Your task to perform on an android device: open app "DoorDash - Food Delivery" (install if not already installed), go to login, and select forgot password Image 0: 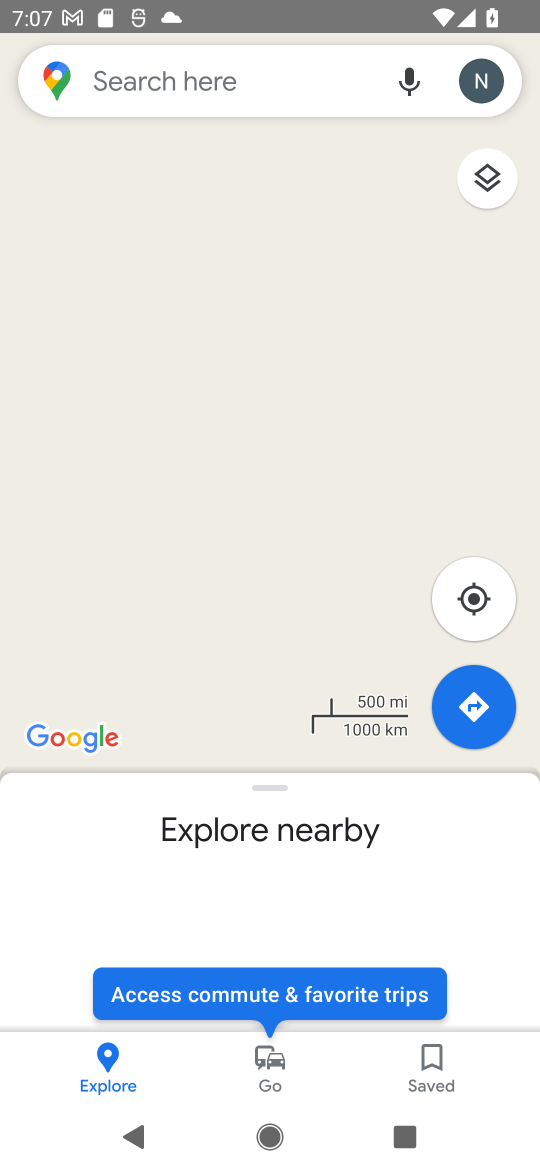
Step 0: press home button
Your task to perform on an android device: open app "DoorDash - Food Delivery" (install if not already installed), go to login, and select forgot password Image 1: 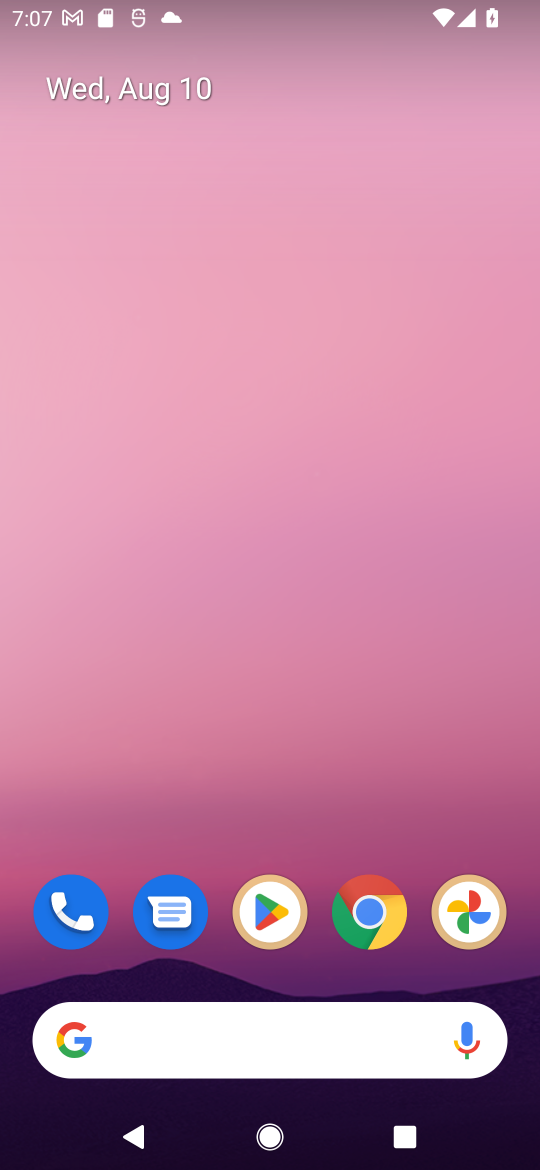
Step 1: drag from (514, 962) to (299, 63)
Your task to perform on an android device: open app "DoorDash - Food Delivery" (install if not already installed), go to login, and select forgot password Image 2: 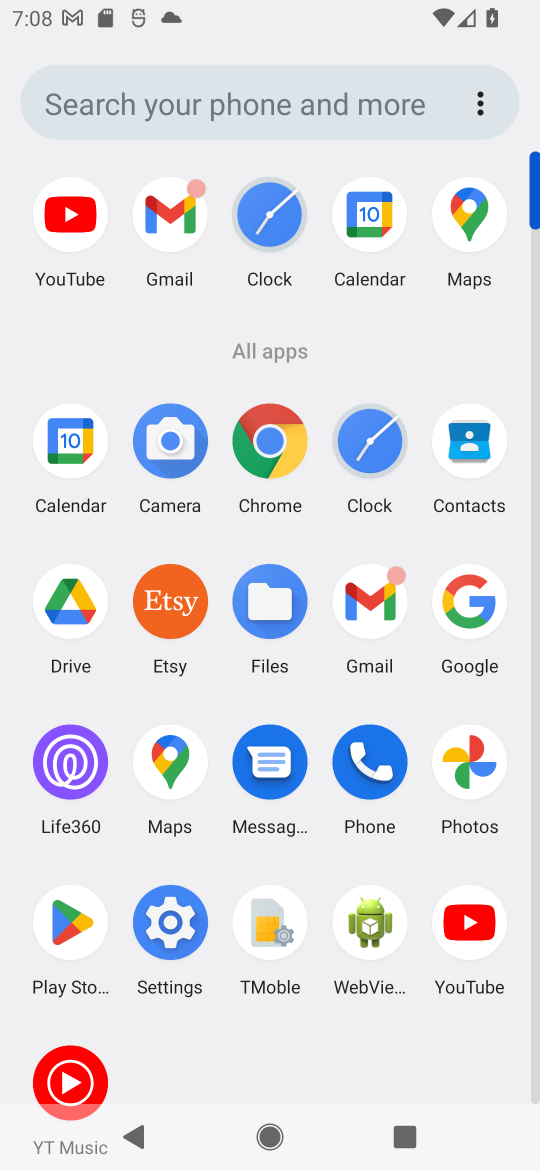
Step 2: click (72, 928)
Your task to perform on an android device: open app "DoorDash - Food Delivery" (install if not already installed), go to login, and select forgot password Image 3: 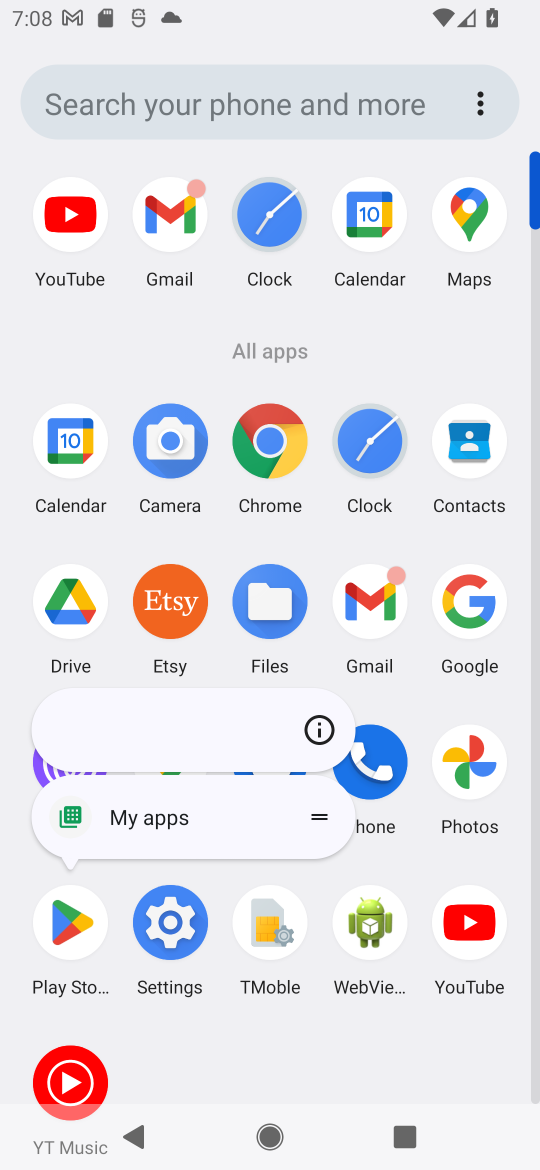
Step 3: click (60, 951)
Your task to perform on an android device: open app "DoorDash - Food Delivery" (install if not already installed), go to login, and select forgot password Image 4: 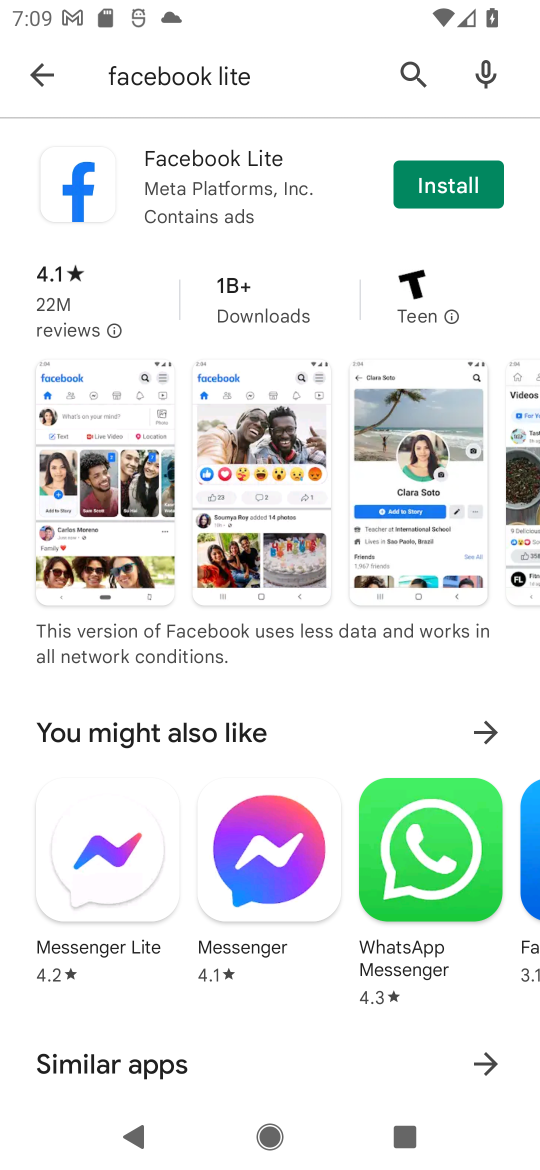
Step 4: press back button
Your task to perform on an android device: open app "DoorDash - Food Delivery" (install if not already installed), go to login, and select forgot password Image 5: 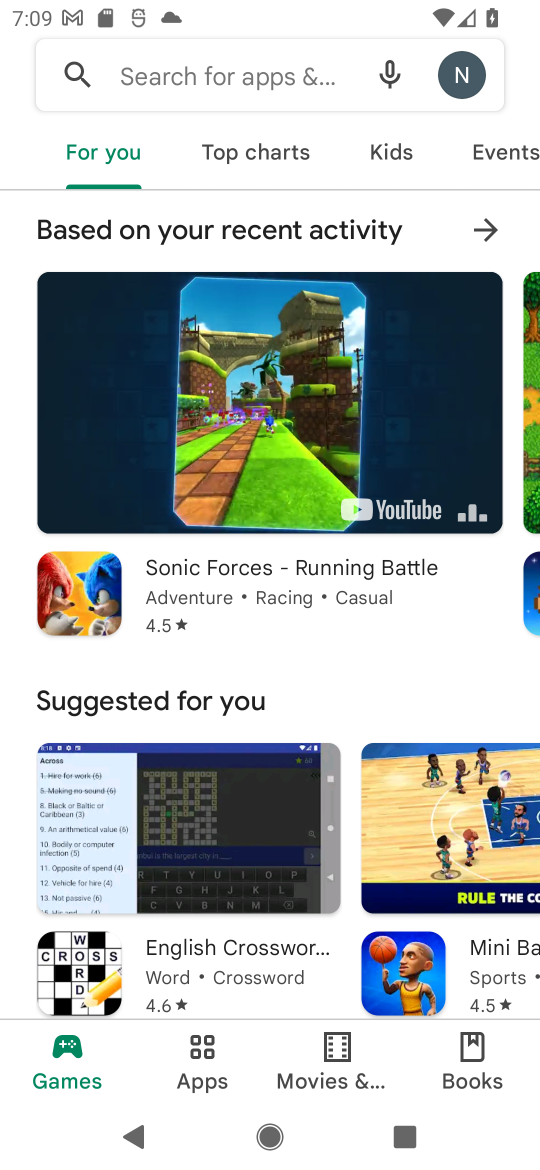
Step 5: click (194, 81)
Your task to perform on an android device: open app "DoorDash - Food Delivery" (install if not already installed), go to login, and select forgot password Image 6: 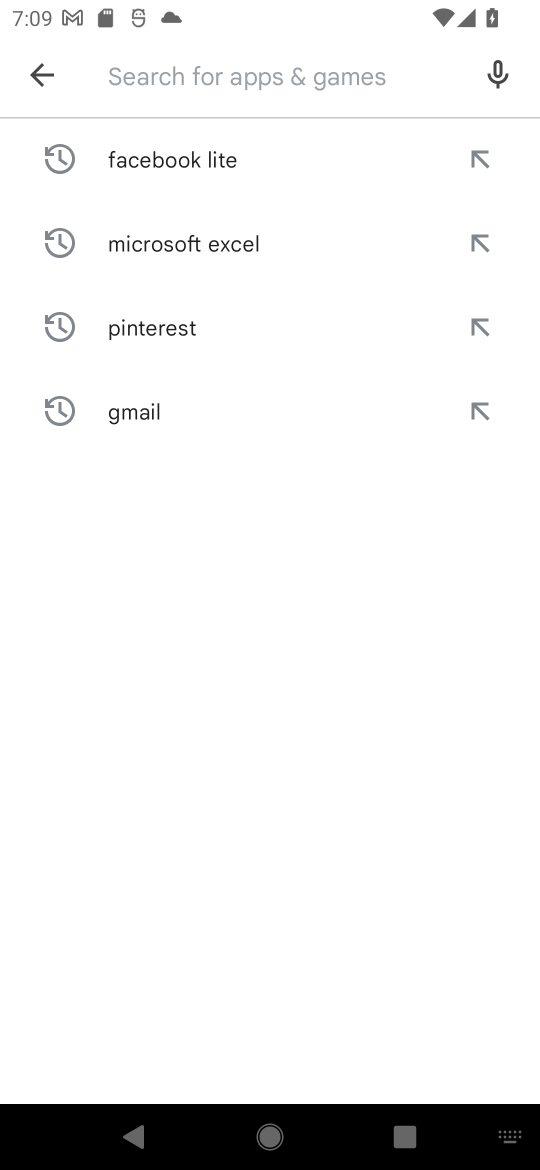
Step 6: type "DoorDash - Food Delivery"
Your task to perform on an android device: open app "DoorDash - Food Delivery" (install if not already installed), go to login, and select forgot password Image 7: 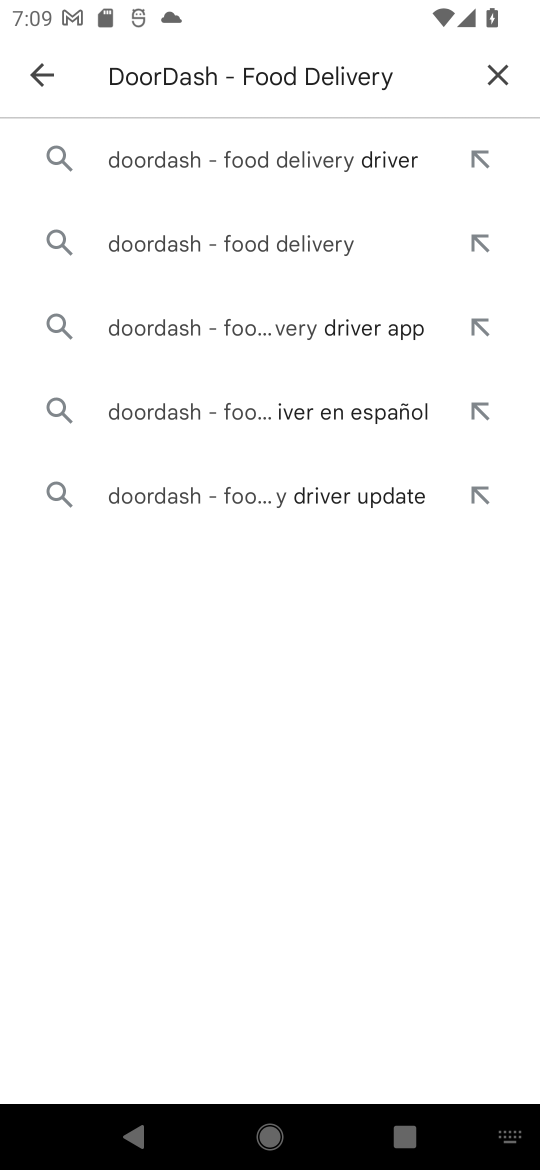
Step 7: click (263, 241)
Your task to perform on an android device: open app "DoorDash - Food Delivery" (install if not already installed), go to login, and select forgot password Image 8: 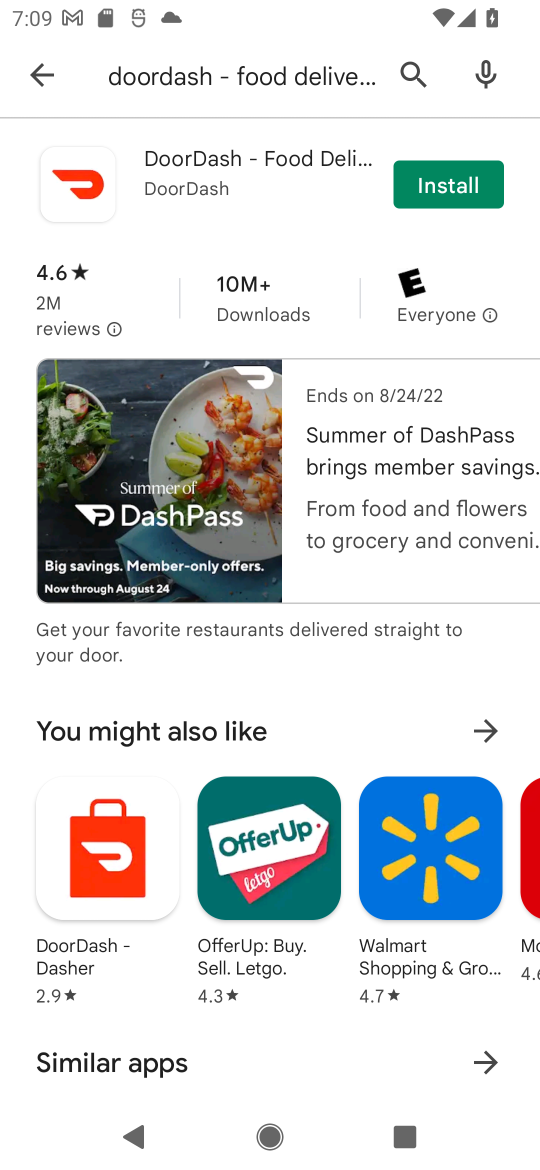
Step 8: task complete